Your task to perform on an android device: Go to eBay Image 0: 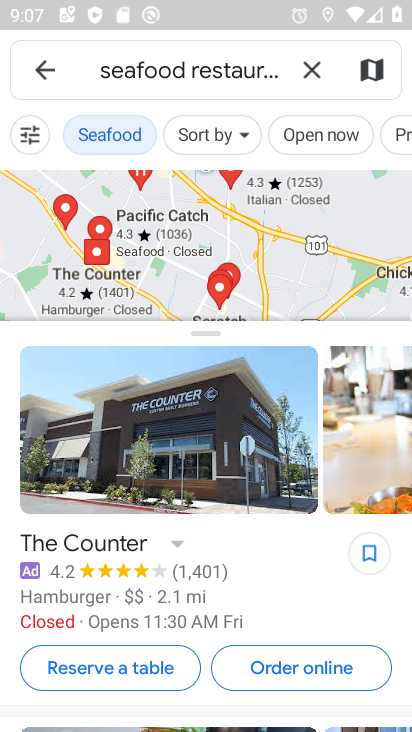
Step 0: click (317, 65)
Your task to perform on an android device: Go to eBay Image 1: 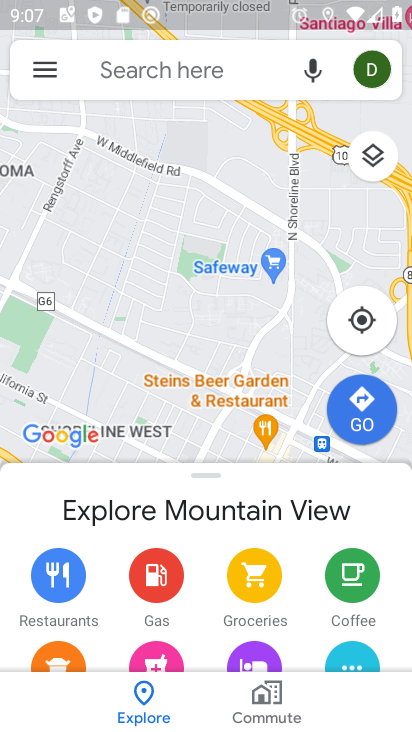
Step 1: click (185, 61)
Your task to perform on an android device: Go to eBay Image 2: 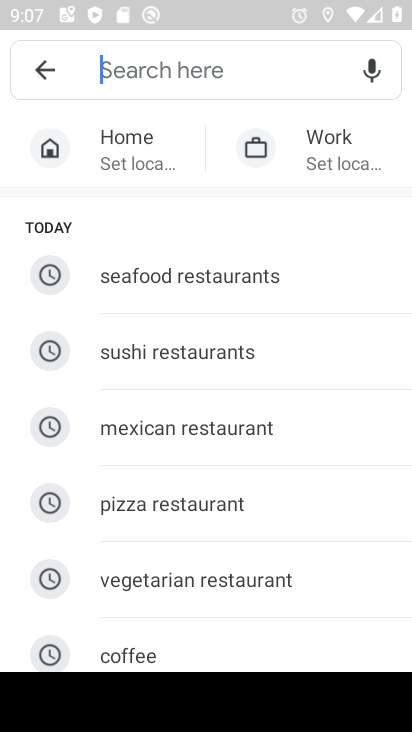
Step 2: type " eBay"
Your task to perform on an android device: Go to eBay Image 3: 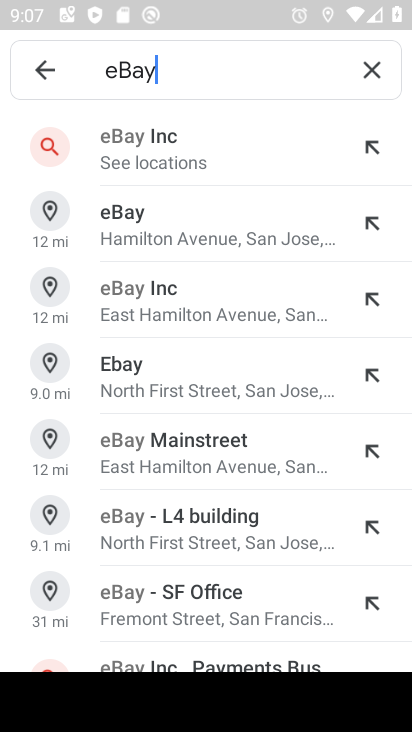
Step 3: click (142, 201)
Your task to perform on an android device: Go to eBay Image 4: 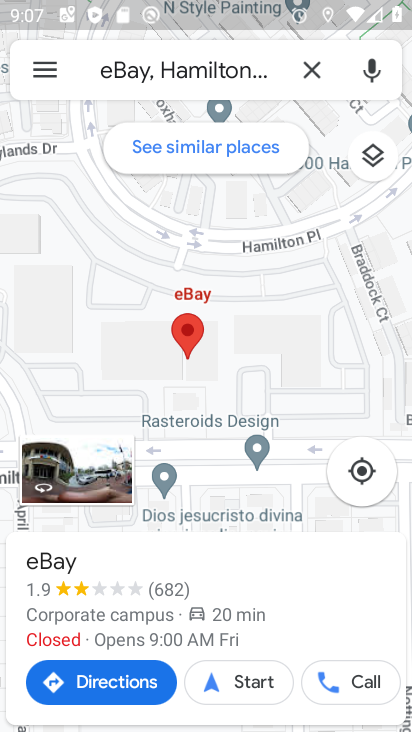
Step 4: click (320, 64)
Your task to perform on an android device: Go to eBay Image 5: 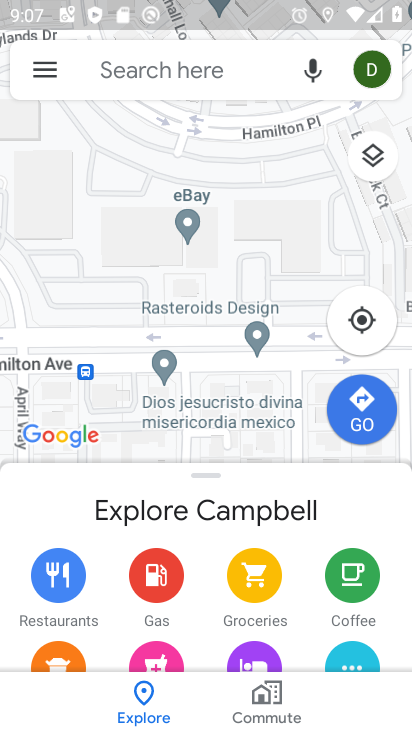
Step 5: press home button
Your task to perform on an android device: Go to eBay Image 6: 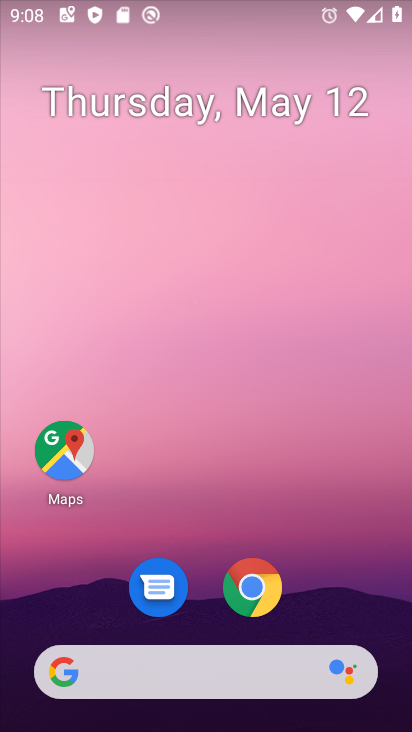
Step 6: drag from (349, 566) to (356, 221)
Your task to perform on an android device: Go to eBay Image 7: 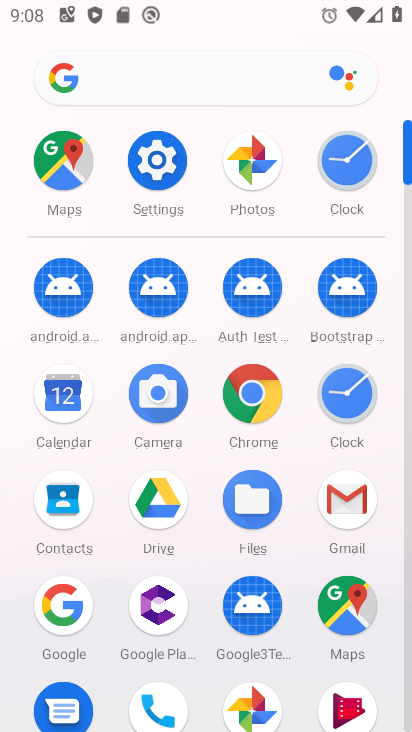
Step 7: click (51, 136)
Your task to perform on an android device: Go to eBay Image 8: 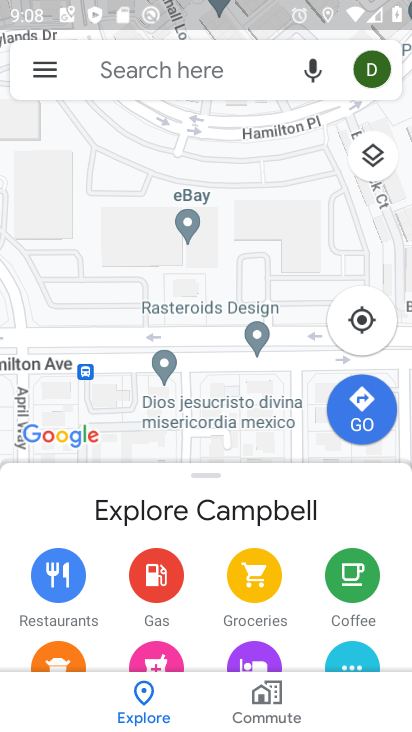
Step 8: click (175, 58)
Your task to perform on an android device: Go to eBay Image 9: 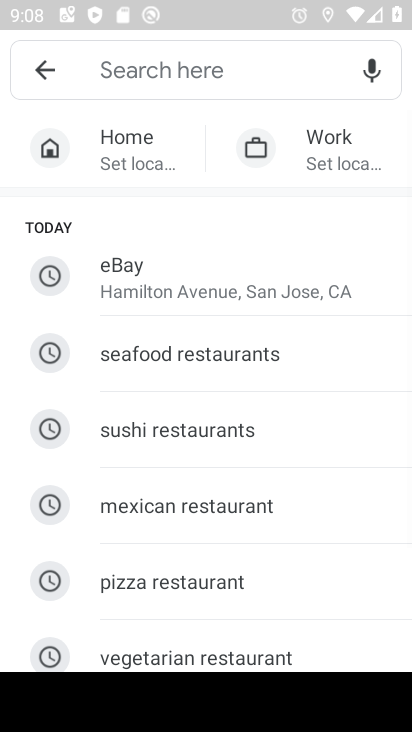
Step 9: type " eBay"
Your task to perform on an android device: Go to eBay Image 10: 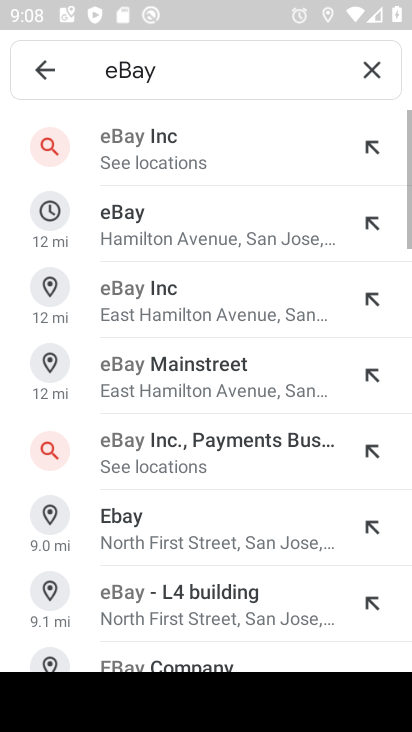
Step 10: click (204, 147)
Your task to perform on an android device: Go to eBay Image 11: 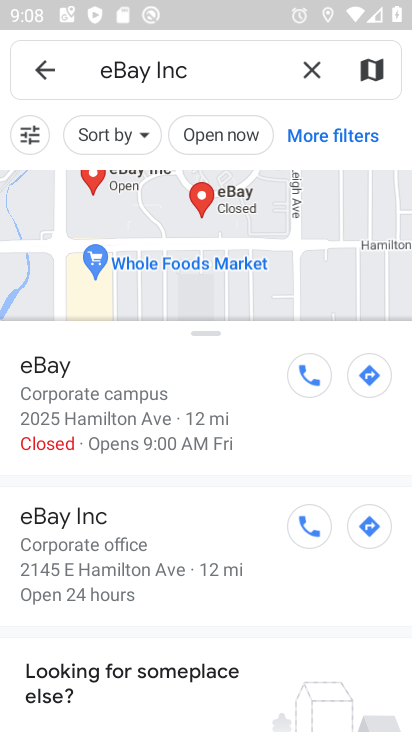
Step 11: task complete